Your task to perform on an android device: Open Chrome and go to the settings page Image 0: 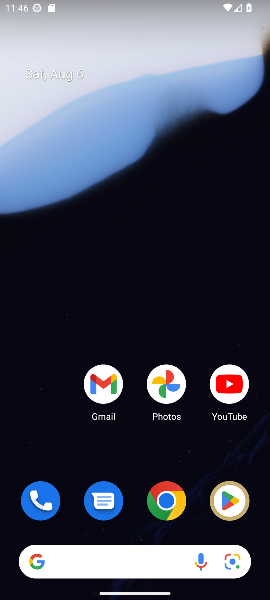
Step 0: click (159, 506)
Your task to perform on an android device: Open Chrome and go to the settings page Image 1: 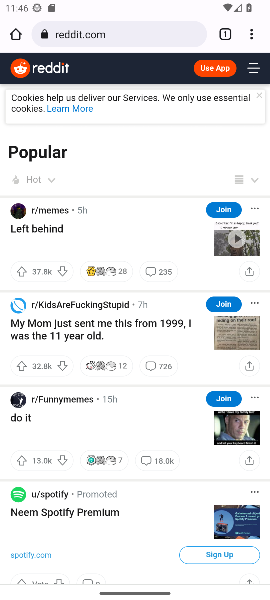
Step 1: click (252, 33)
Your task to perform on an android device: Open Chrome and go to the settings page Image 2: 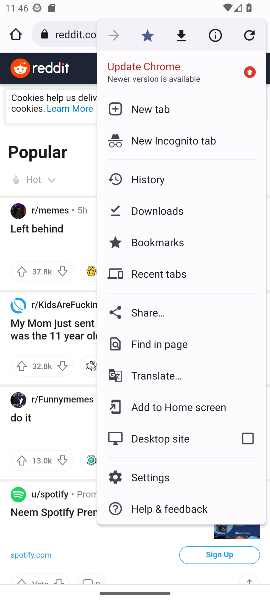
Step 2: click (161, 476)
Your task to perform on an android device: Open Chrome and go to the settings page Image 3: 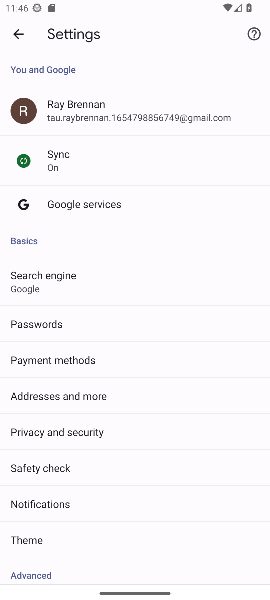
Step 3: task complete